Your task to perform on an android device: Go to Google maps Image 0: 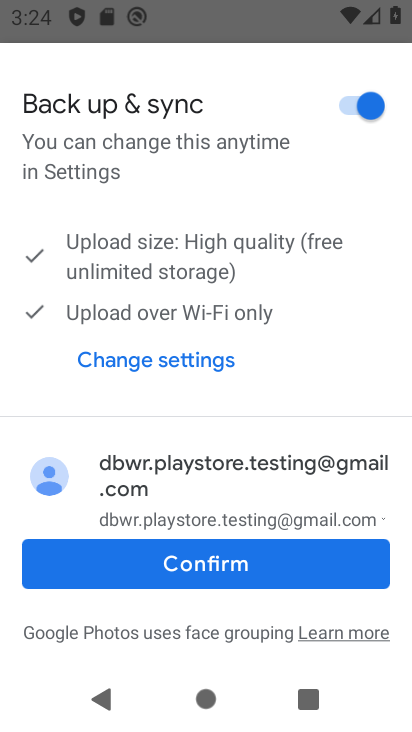
Step 0: click (209, 561)
Your task to perform on an android device: Go to Google maps Image 1: 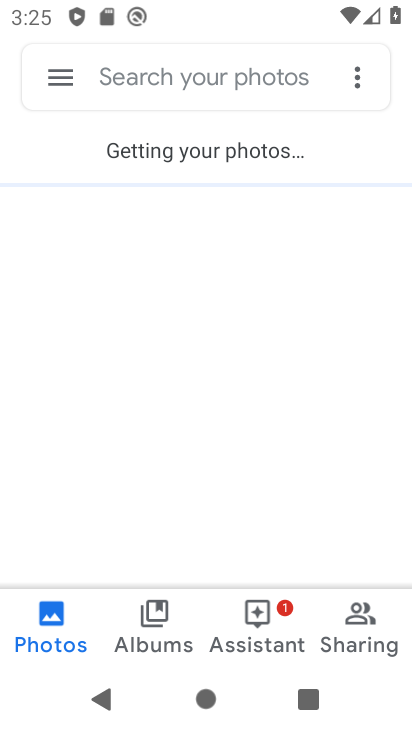
Step 1: press home button
Your task to perform on an android device: Go to Google maps Image 2: 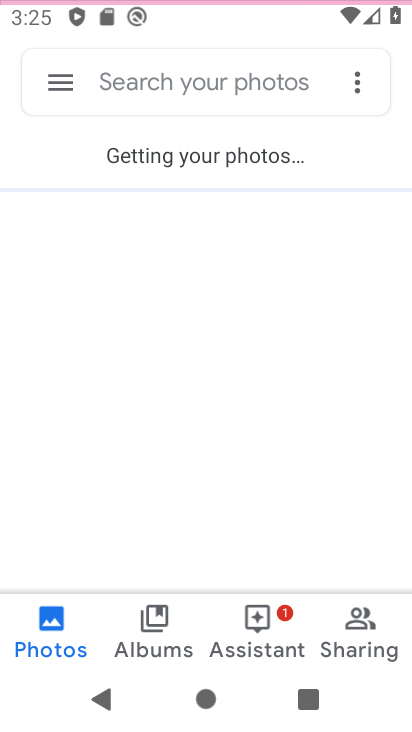
Step 2: press home button
Your task to perform on an android device: Go to Google maps Image 3: 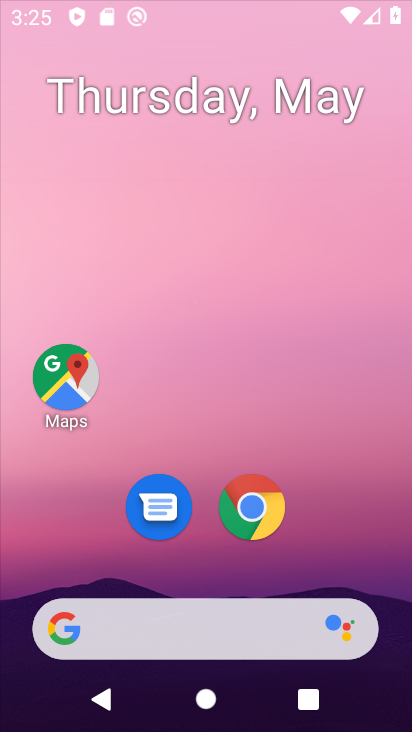
Step 3: press home button
Your task to perform on an android device: Go to Google maps Image 4: 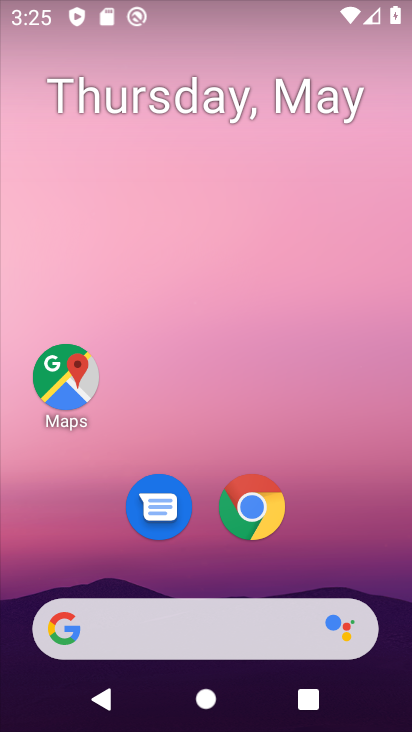
Step 4: drag from (301, 487) to (170, 41)
Your task to perform on an android device: Go to Google maps Image 5: 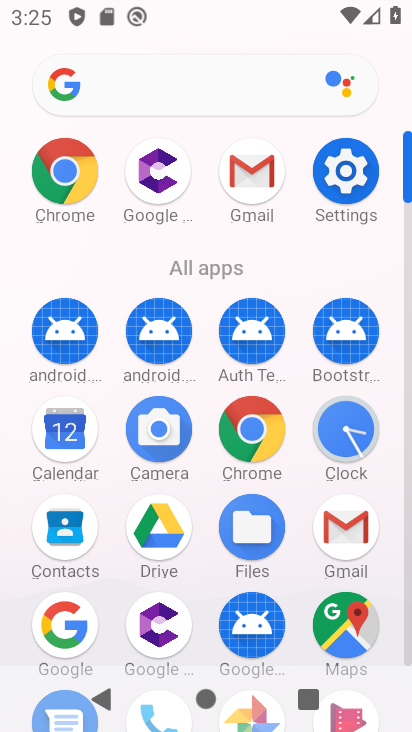
Step 5: click (350, 629)
Your task to perform on an android device: Go to Google maps Image 6: 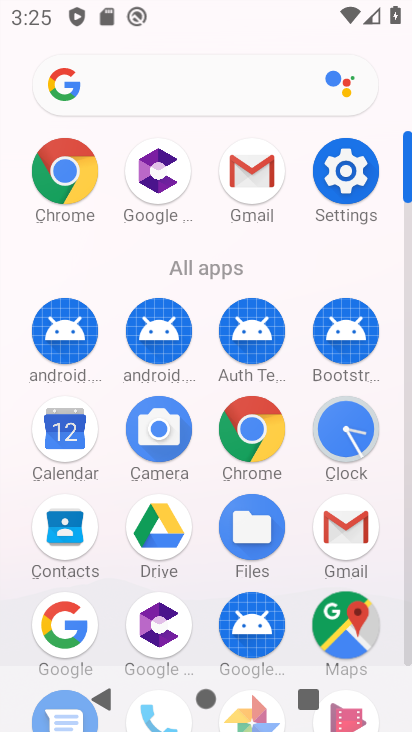
Step 6: click (348, 631)
Your task to perform on an android device: Go to Google maps Image 7: 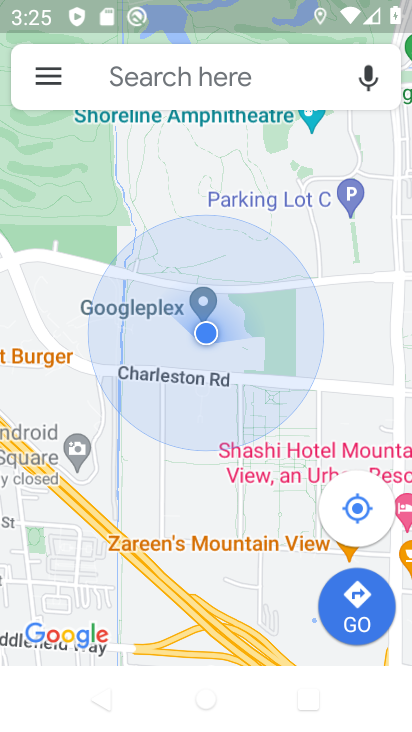
Step 7: click (111, 80)
Your task to perform on an android device: Go to Google maps Image 8: 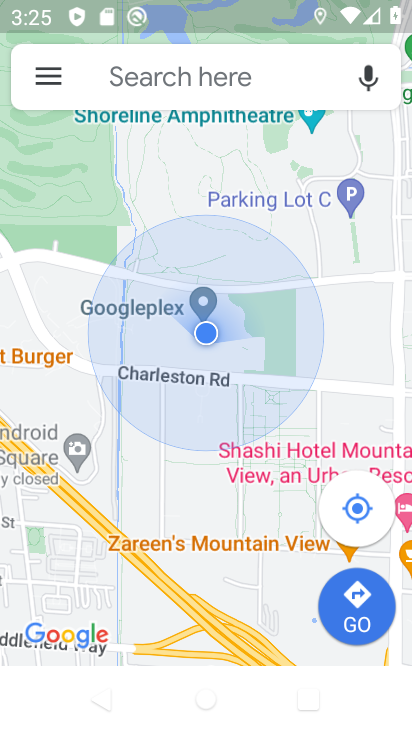
Step 8: click (117, 78)
Your task to perform on an android device: Go to Google maps Image 9: 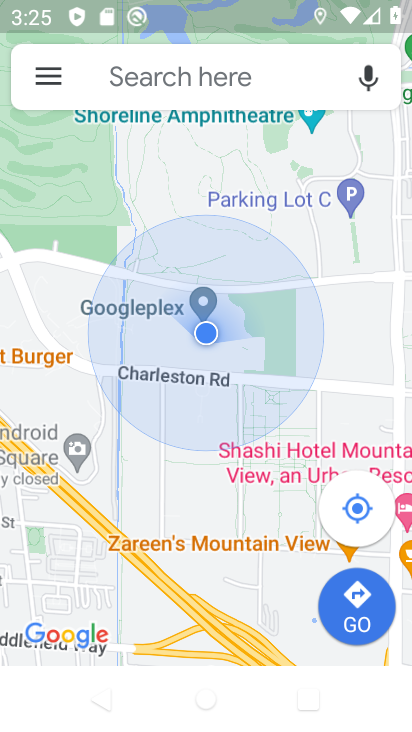
Step 9: click (119, 76)
Your task to perform on an android device: Go to Google maps Image 10: 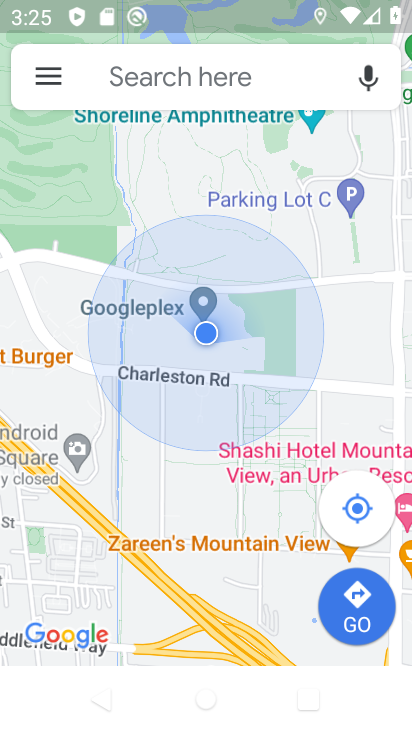
Step 10: click (129, 101)
Your task to perform on an android device: Go to Google maps Image 11: 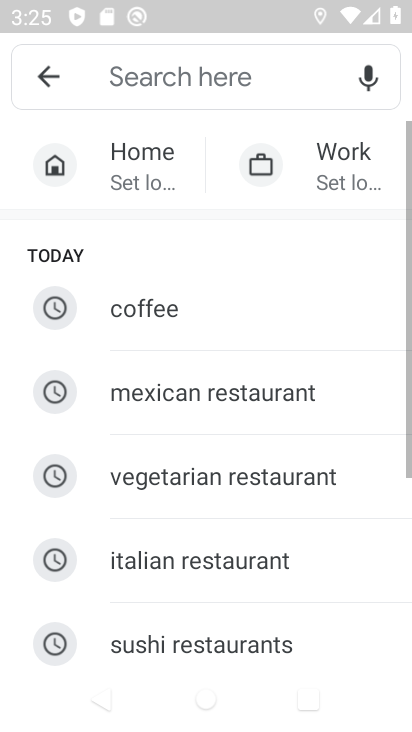
Step 11: task complete